Your task to perform on an android device: Open display settings Image 0: 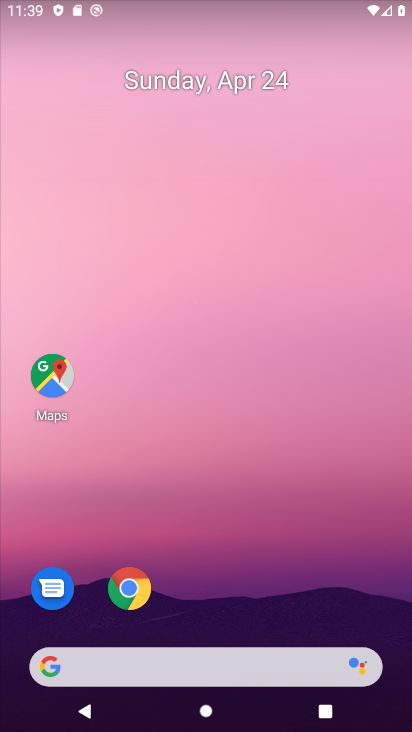
Step 0: drag from (231, 622) to (237, 20)
Your task to perform on an android device: Open display settings Image 1: 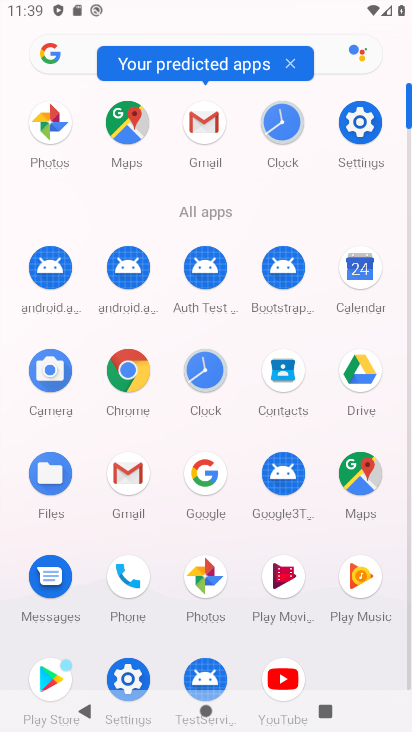
Step 1: click (358, 131)
Your task to perform on an android device: Open display settings Image 2: 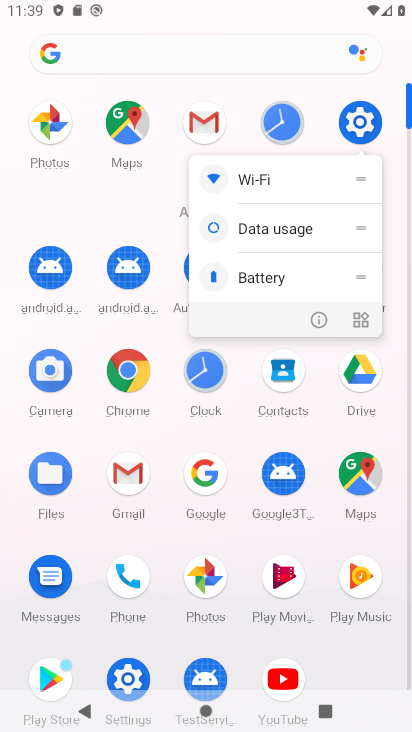
Step 2: click (361, 116)
Your task to perform on an android device: Open display settings Image 3: 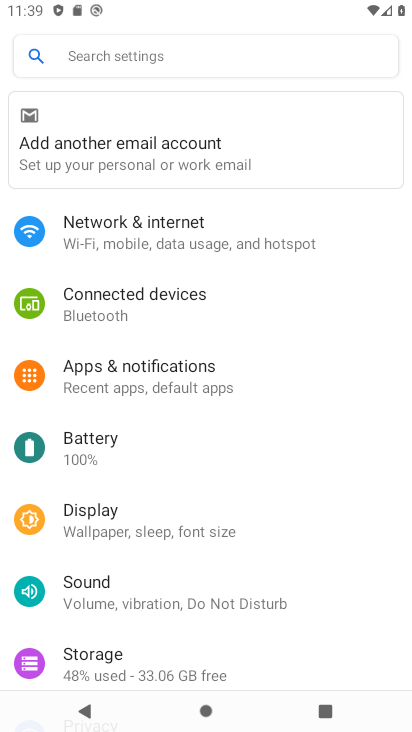
Step 3: click (96, 521)
Your task to perform on an android device: Open display settings Image 4: 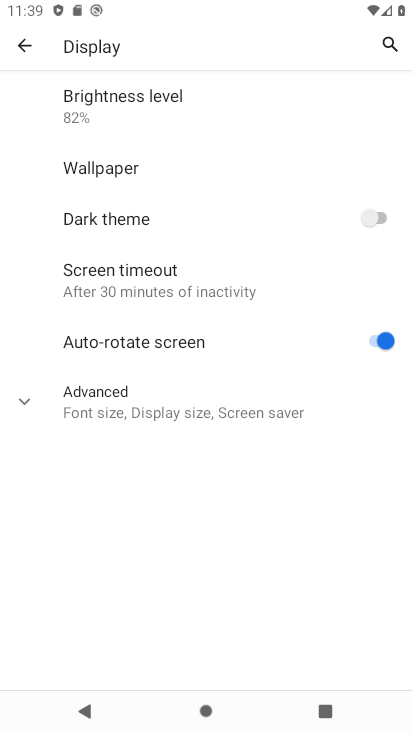
Step 4: click (198, 420)
Your task to perform on an android device: Open display settings Image 5: 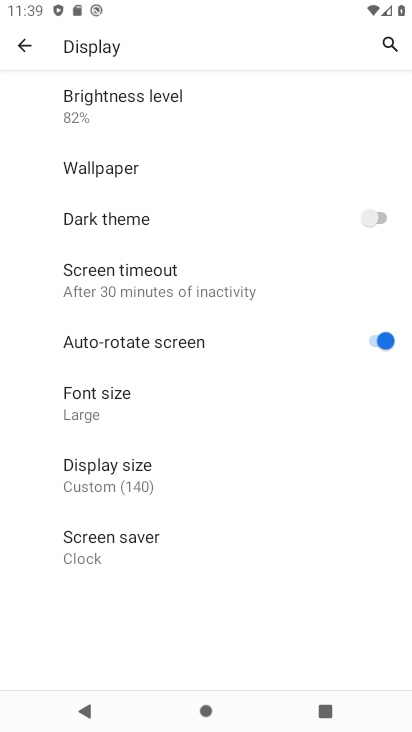
Step 5: task complete